Your task to perform on an android device: See recent photos Image 0: 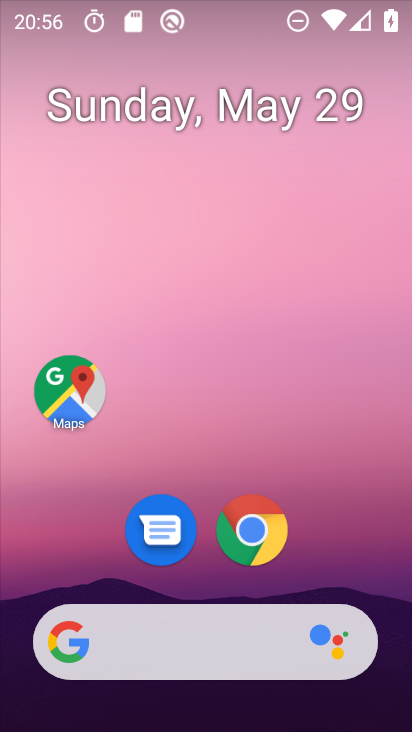
Step 0: press home button
Your task to perform on an android device: See recent photos Image 1: 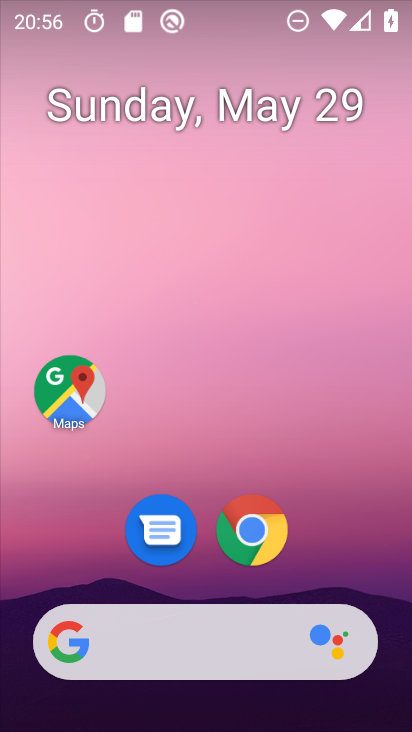
Step 1: drag from (191, 712) to (373, 43)
Your task to perform on an android device: See recent photos Image 2: 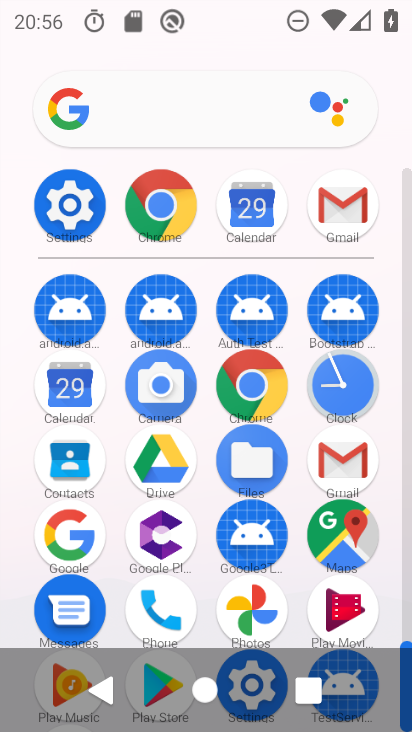
Step 2: click (243, 605)
Your task to perform on an android device: See recent photos Image 3: 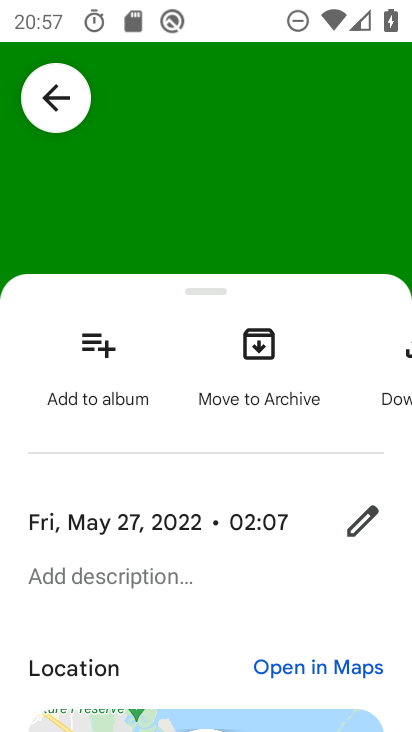
Step 3: click (28, 108)
Your task to perform on an android device: See recent photos Image 4: 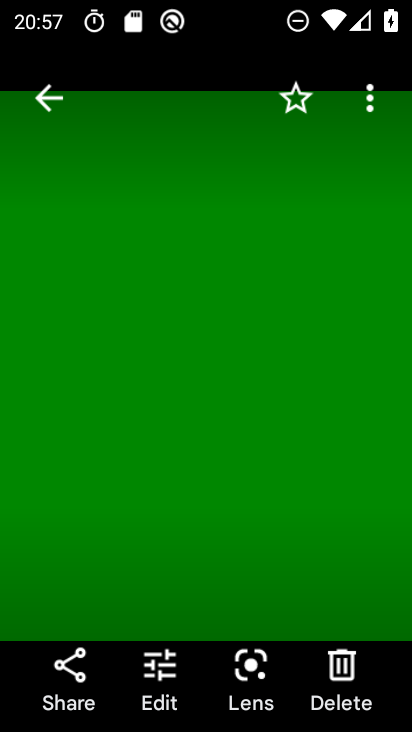
Step 4: click (85, 90)
Your task to perform on an android device: See recent photos Image 5: 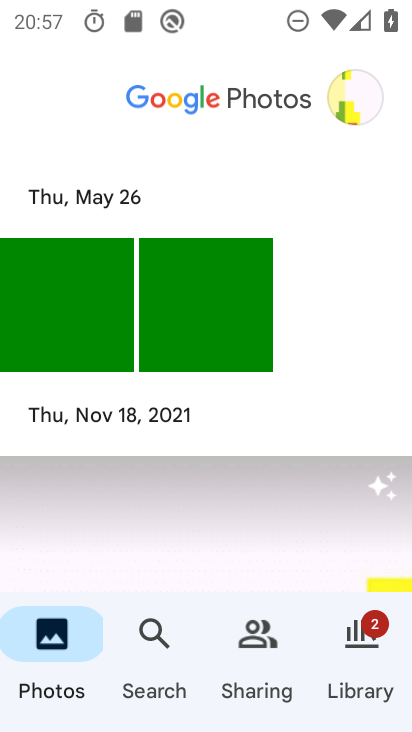
Step 5: task complete